Your task to perform on an android device: turn off improve location accuracy Image 0: 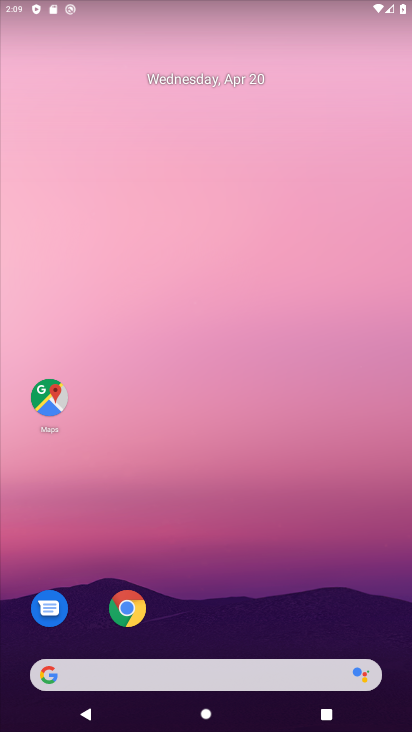
Step 0: drag from (369, 495) to (328, 254)
Your task to perform on an android device: turn off improve location accuracy Image 1: 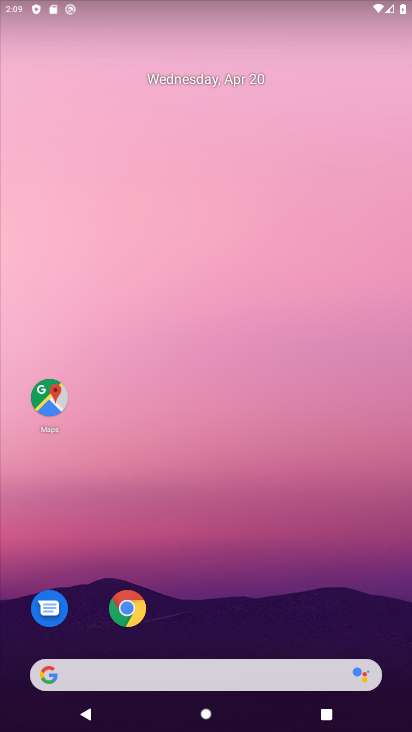
Step 1: drag from (345, 564) to (352, 176)
Your task to perform on an android device: turn off improve location accuracy Image 2: 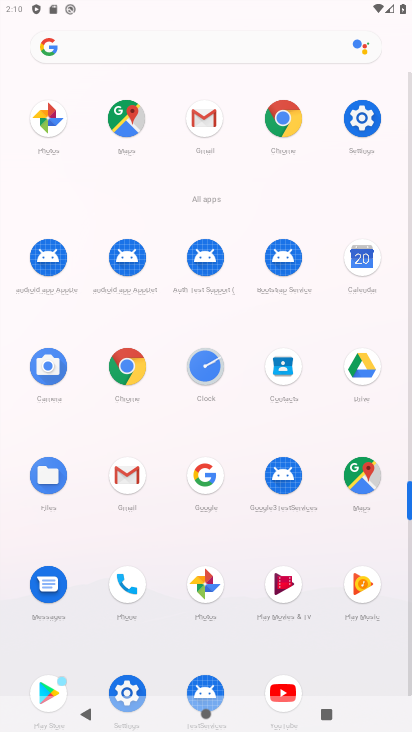
Step 2: click (369, 132)
Your task to perform on an android device: turn off improve location accuracy Image 3: 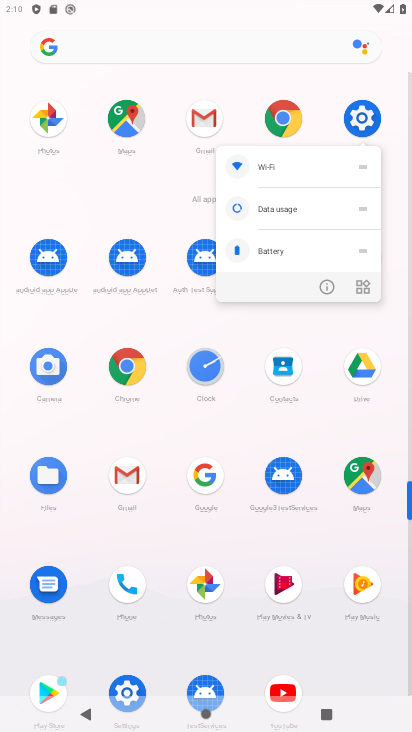
Step 3: click (367, 130)
Your task to perform on an android device: turn off improve location accuracy Image 4: 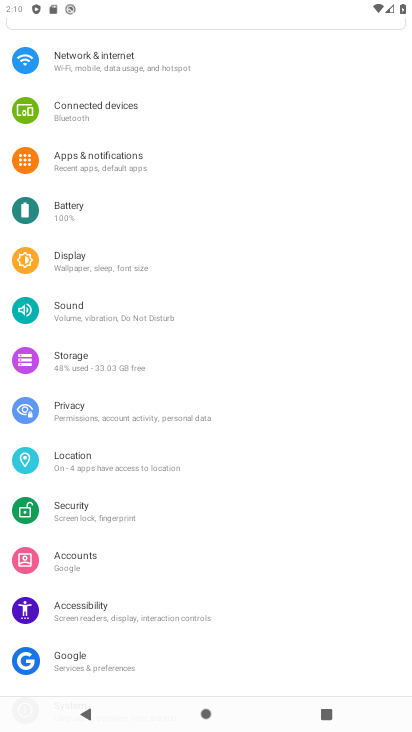
Step 4: drag from (214, 638) to (234, 311)
Your task to perform on an android device: turn off improve location accuracy Image 5: 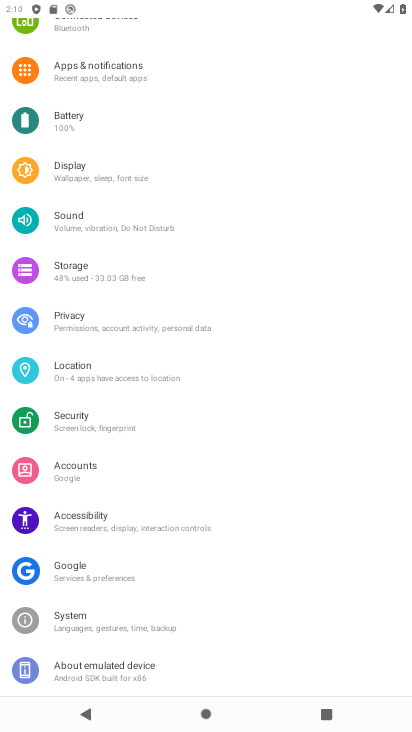
Step 5: click (103, 369)
Your task to perform on an android device: turn off improve location accuracy Image 6: 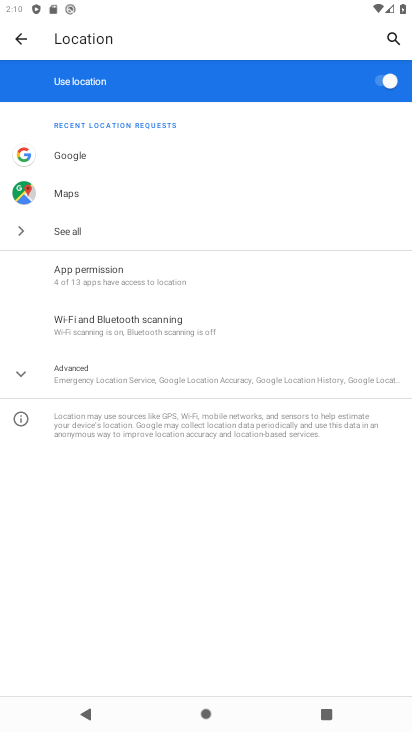
Step 6: click (156, 369)
Your task to perform on an android device: turn off improve location accuracy Image 7: 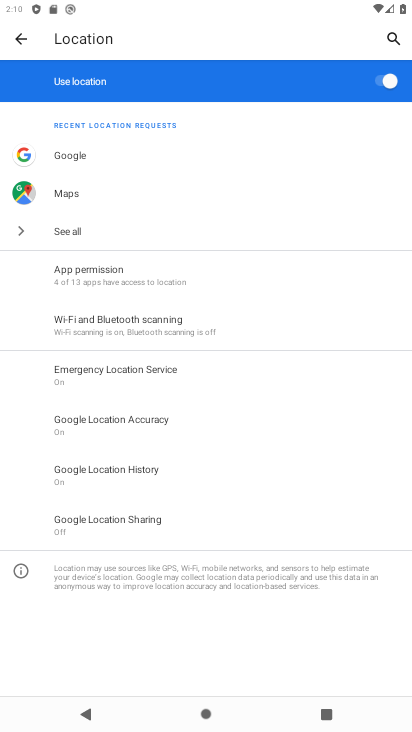
Step 7: click (168, 417)
Your task to perform on an android device: turn off improve location accuracy Image 8: 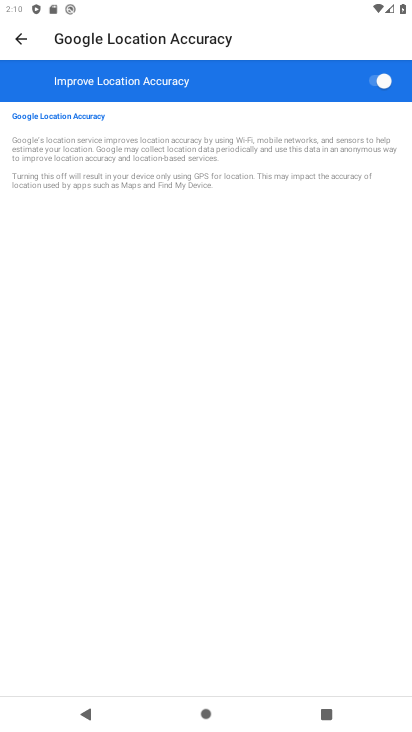
Step 8: click (377, 80)
Your task to perform on an android device: turn off improve location accuracy Image 9: 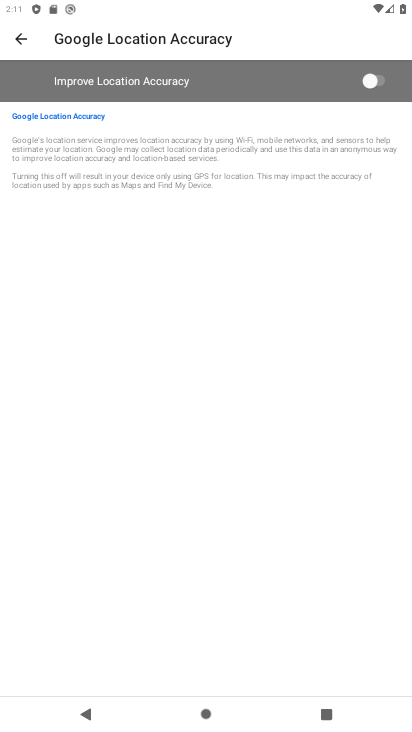
Step 9: task complete